Your task to perform on an android device: turn off location history Image 0: 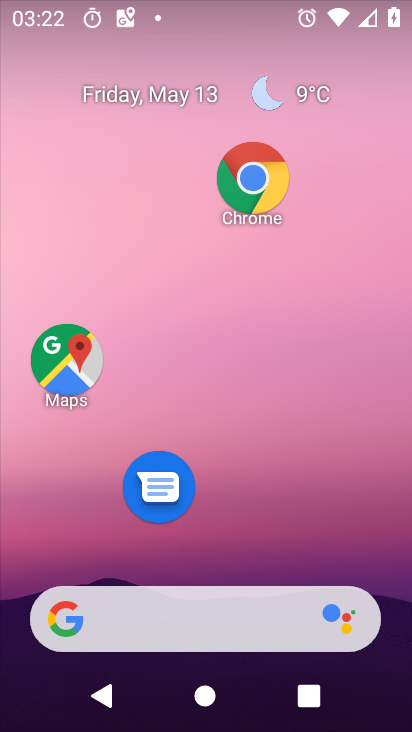
Step 0: drag from (254, 544) to (268, 126)
Your task to perform on an android device: turn off location history Image 1: 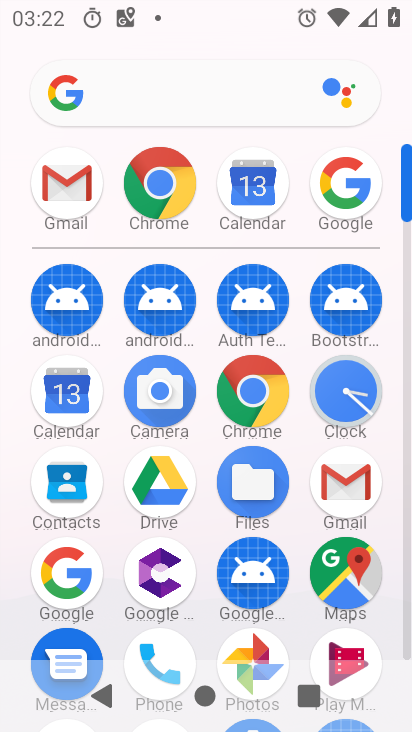
Step 1: drag from (211, 549) to (228, 164)
Your task to perform on an android device: turn off location history Image 2: 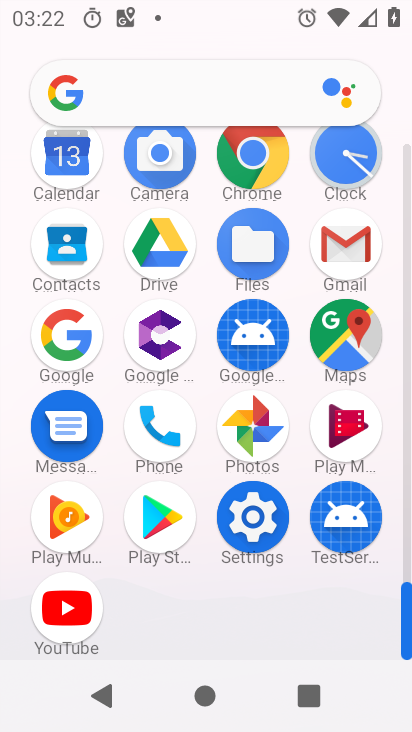
Step 2: click (246, 522)
Your task to perform on an android device: turn off location history Image 3: 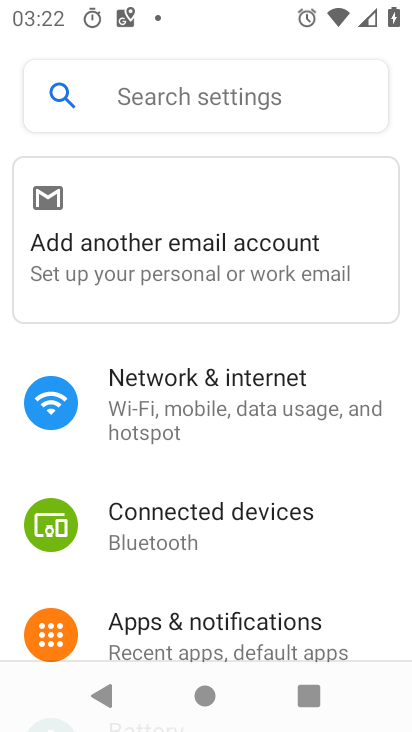
Step 3: drag from (263, 609) to (274, 167)
Your task to perform on an android device: turn off location history Image 4: 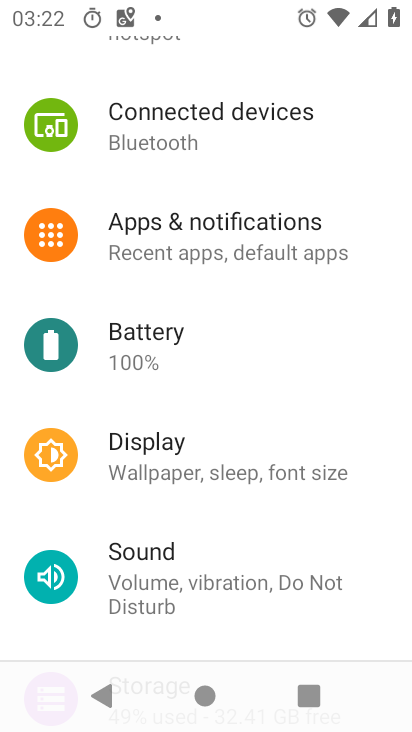
Step 4: drag from (258, 567) to (237, 236)
Your task to perform on an android device: turn off location history Image 5: 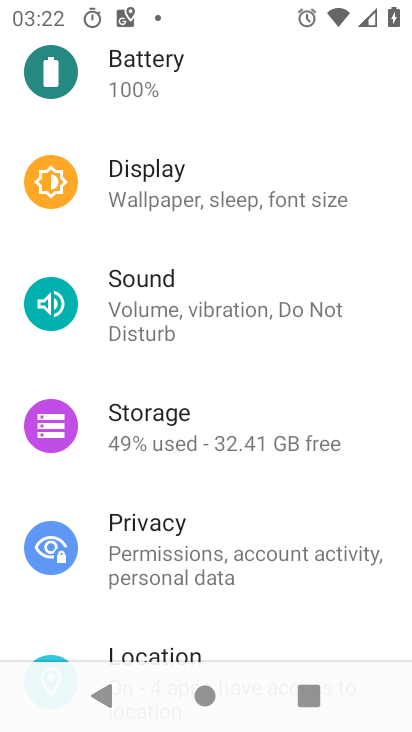
Step 5: drag from (186, 633) to (196, 356)
Your task to perform on an android device: turn off location history Image 6: 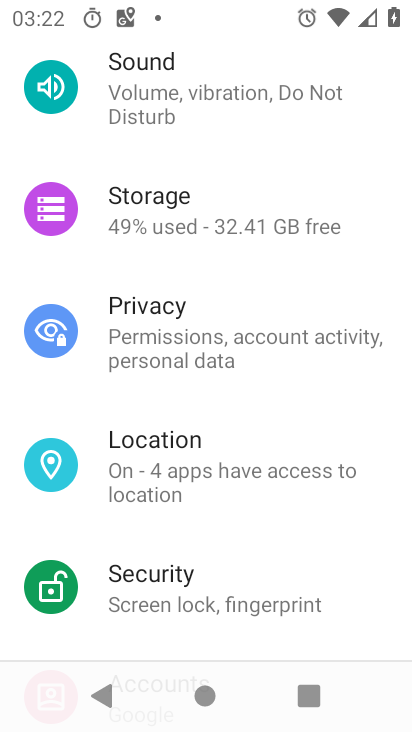
Step 6: click (122, 468)
Your task to perform on an android device: turn off location history Image 7: 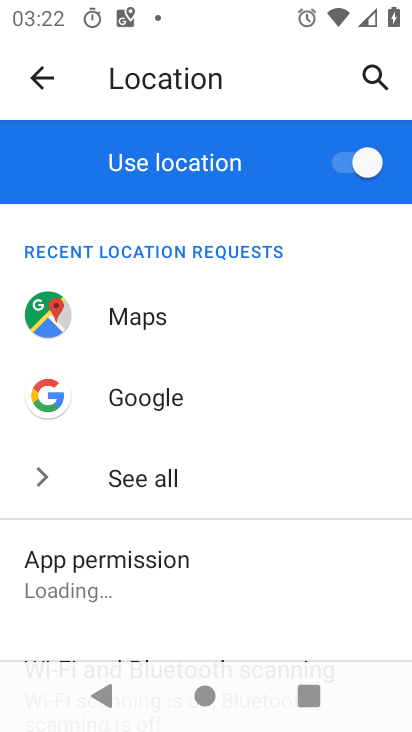
Step 7: drag from (310, 551) to (300, 178)
Your task to perform on an android device: turn off location history Image 8: 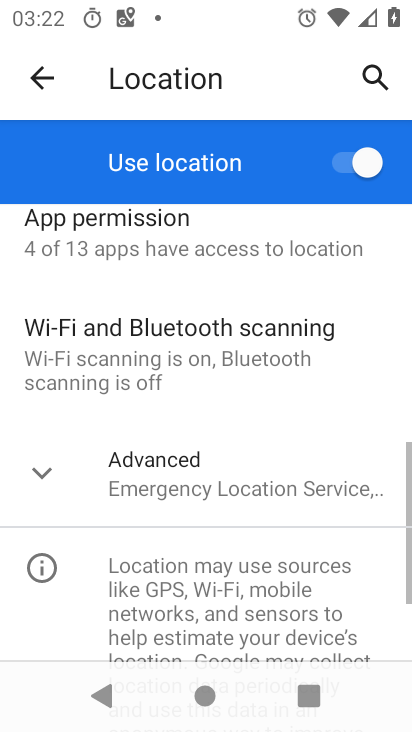
Step 8: click (128, 499)
Your task to perform on an android device: turn off location history Image 9: 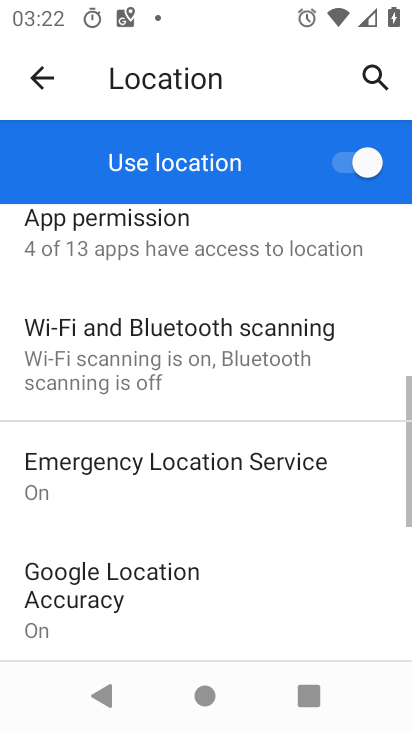
Step 9: drag from (278, 491) to (273, 286)
Your task to perform on an android device: turn off location history Image 10: 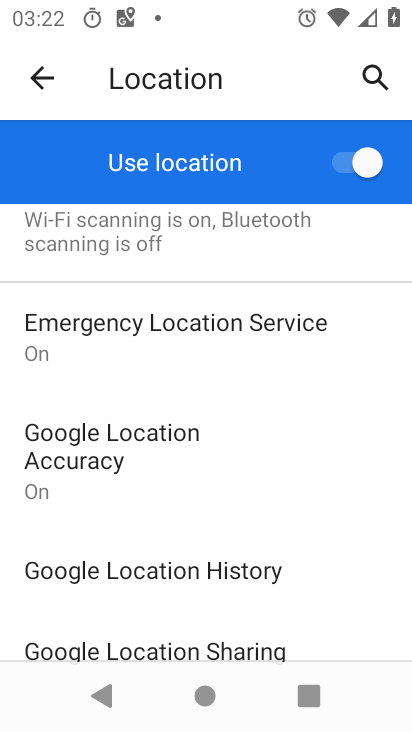
Step 10: click (209, 576)
Your task to perform on an android device: turn off location history Image 11: 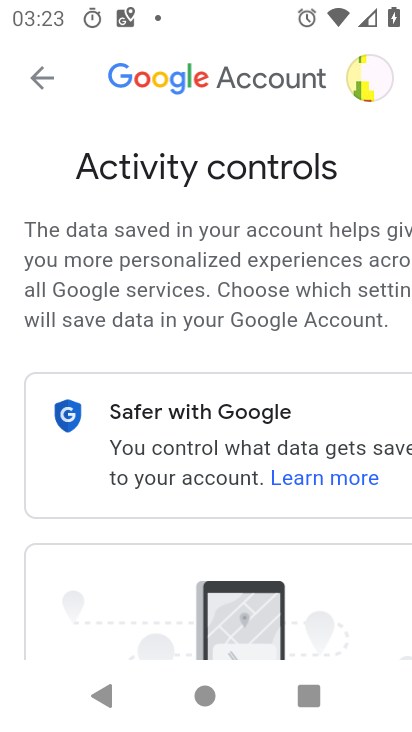
Step 11: drag from (315, 571) to (268, 45)
Your task to perform on an android device: turn off location history Image 12: 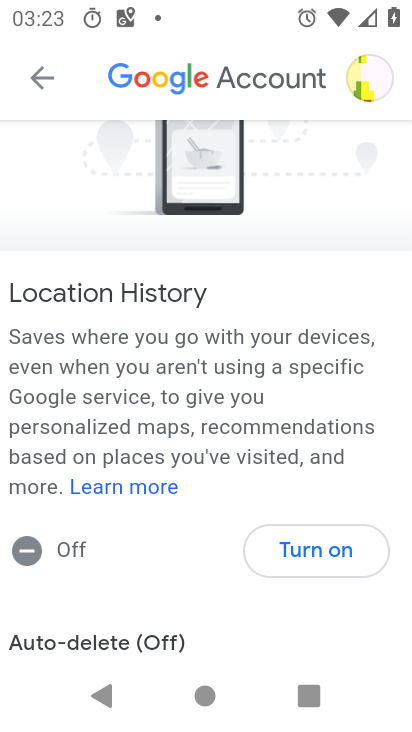
Step 12: drag from (195, 582) to (202, 398)
Your task to perform on an android device: turn off location history Image 13: 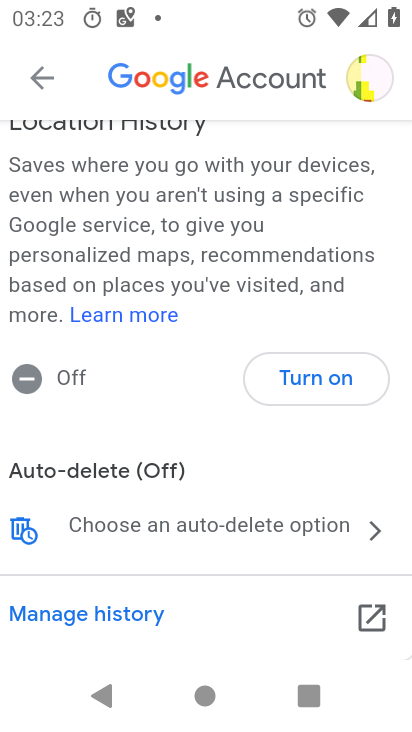
Step 13: click (317, 383)
Your task to perform on an android device: turn off location history Image 14: 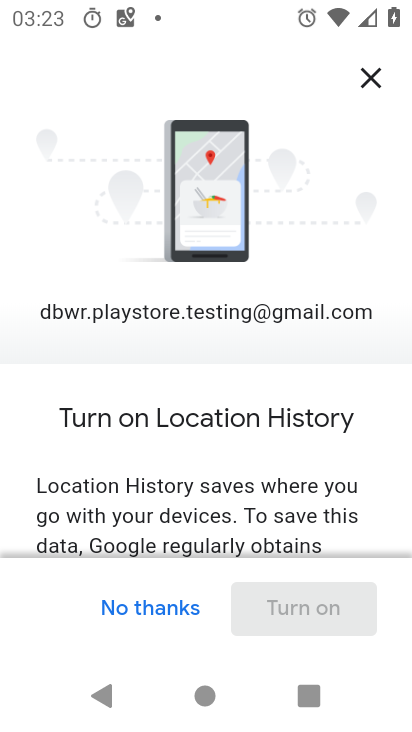
Step 14: task complete